Your task to perform on an android device: Show me popular videos on Youtube Image 0: 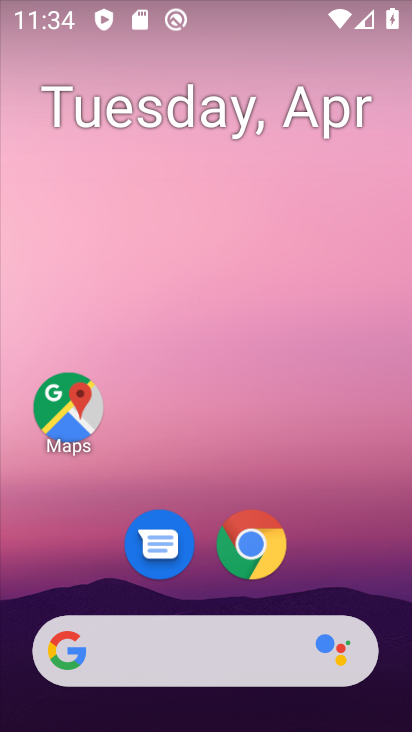
Step 0: drag from (344, 565) to (341, 131)
Your task to perform on an android device: Show me popular videos on Youtube Image 1: 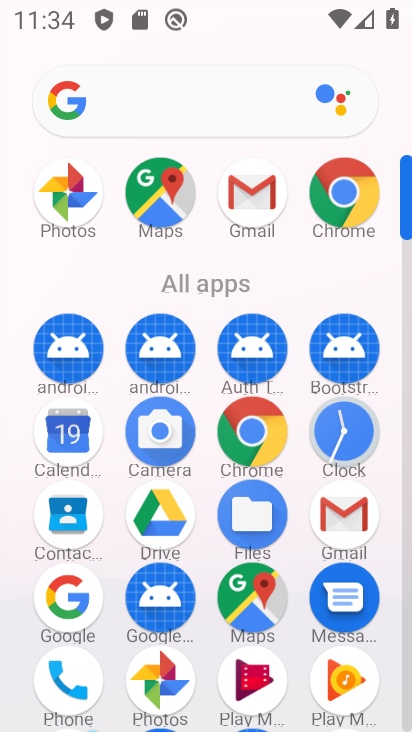
Step 1: drag from (397, 501) to (383, 258)
Your task to perform on an android device: Show me popular videos on Youtube Image 2: 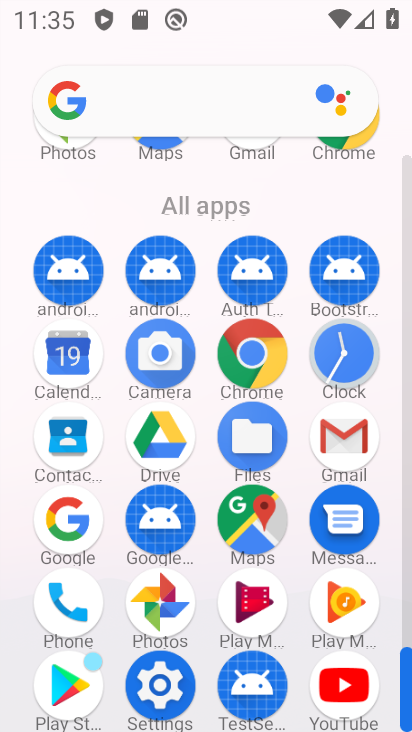
Step 2: click (336, 683)
Your task to perform on an android device: Show me popular videos on Youtube Image 3: 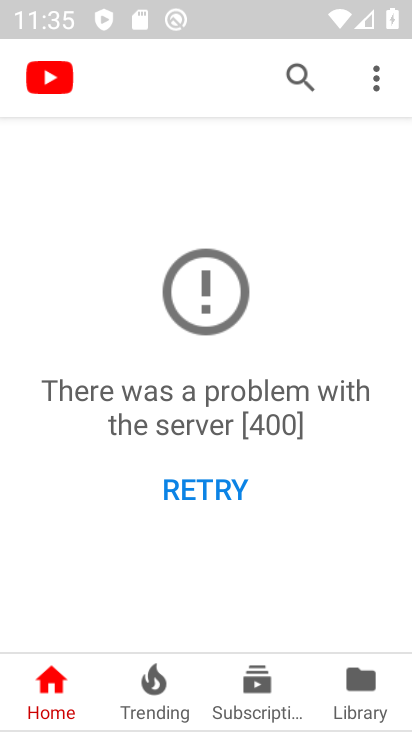
Step 3: click (202, 494)
Your task to perform on an android device: Show me popular videos on Youtube Image 4: 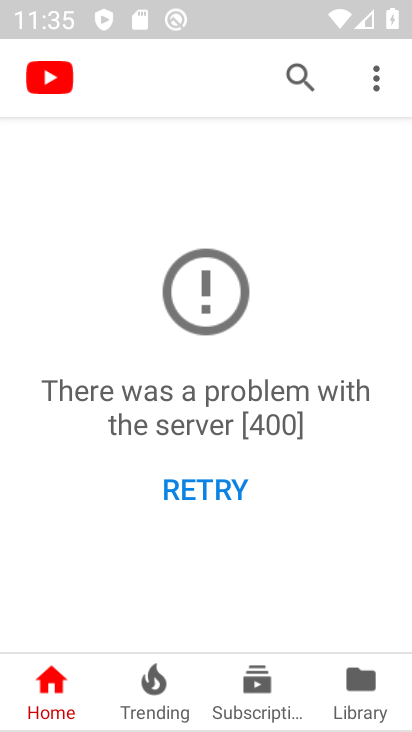
Step 4: task complete